Your task to perform on an android device: Turn off the flashlight Image 0: 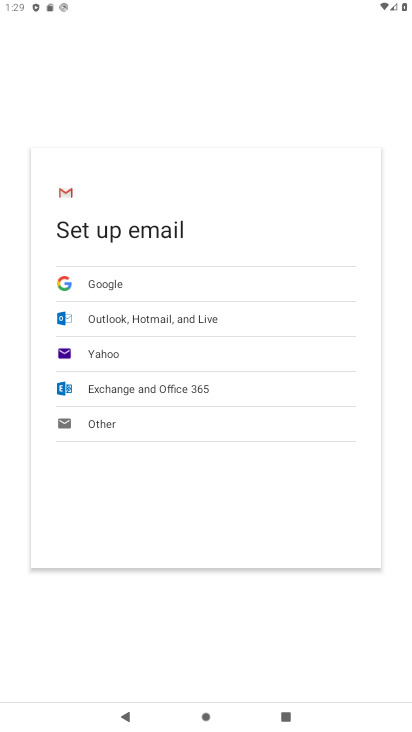
Step 0: press home button
Your task to perform on an android device: Turn off the flashlight Image 1: 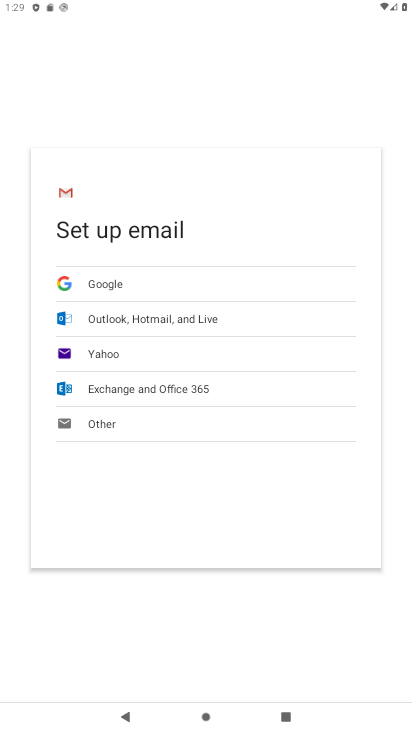
Step 1: press home button
Your task to perform on an android device: Turn off the flashlight Image 2: 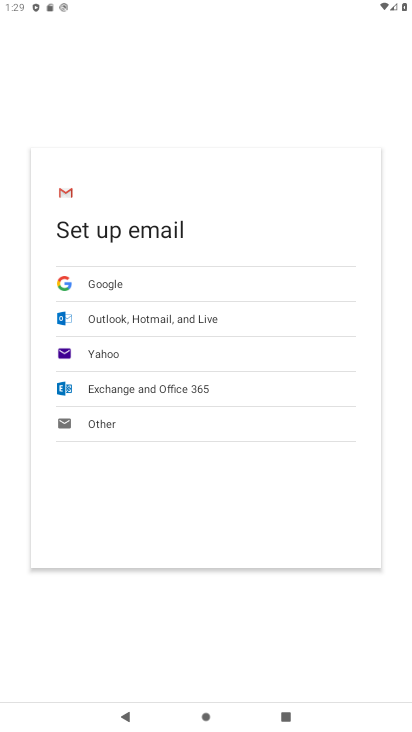
Step 2: drag from (238, 651) to (366, 125)
Your task to perform on an android device: Turn off the flashlight Image 3: 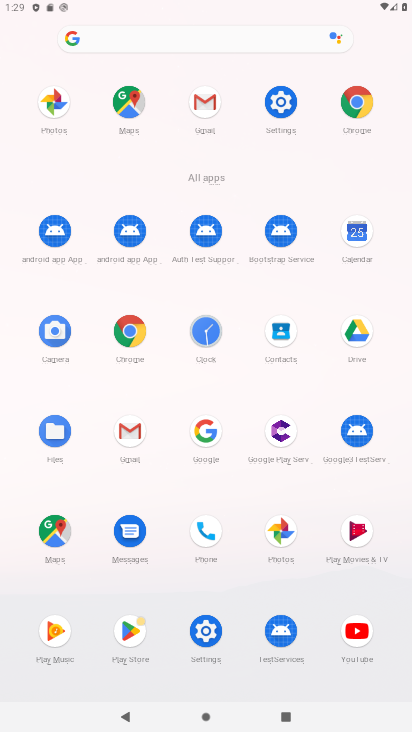
Step 3: drag from (170, 610) to (202, 283)
Your task to perform on an android device: Turn off the flashlight Image 4: 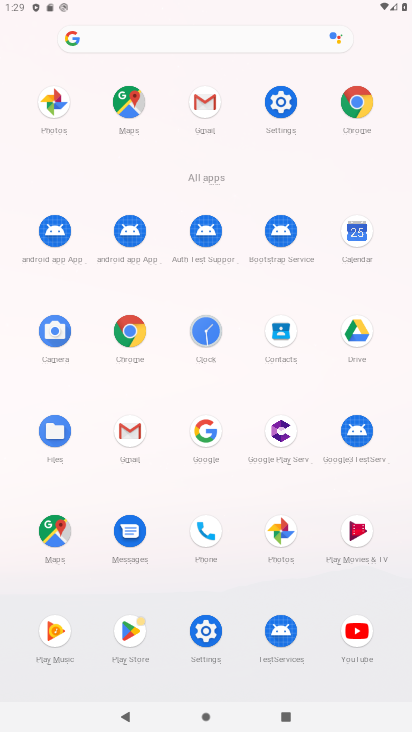
Step 4: click (204, 624)
Your task to perform on an android device: Turn off the flashlight Image 5: 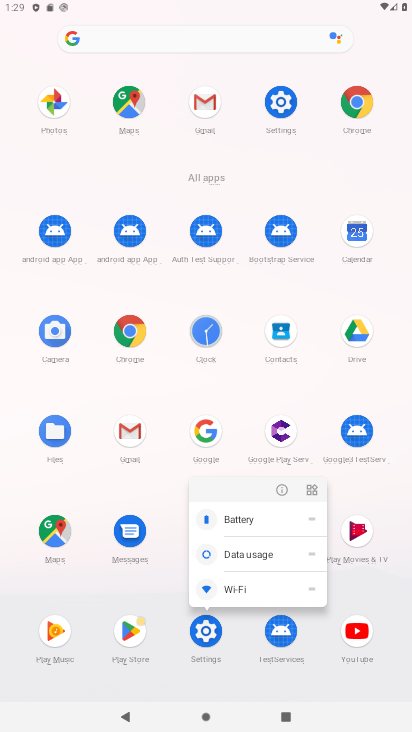
Step 5: click (288, 484)
Your task to perform on an android device: Turn off the flashlight Image 6: 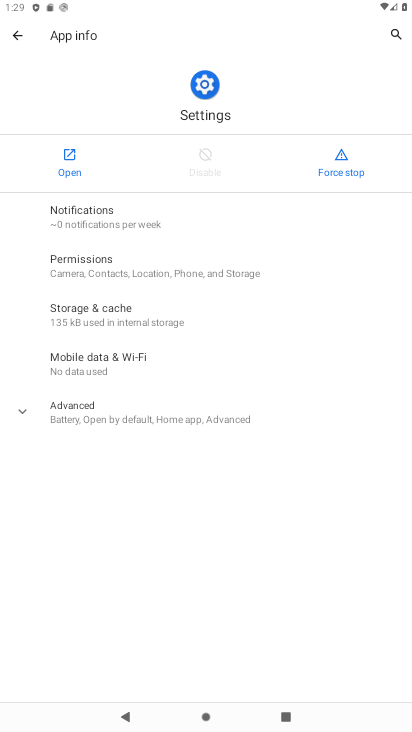
Step 6: click (58, 155)
Your task to perform on an android device: Turn off the flashlight Image 7: 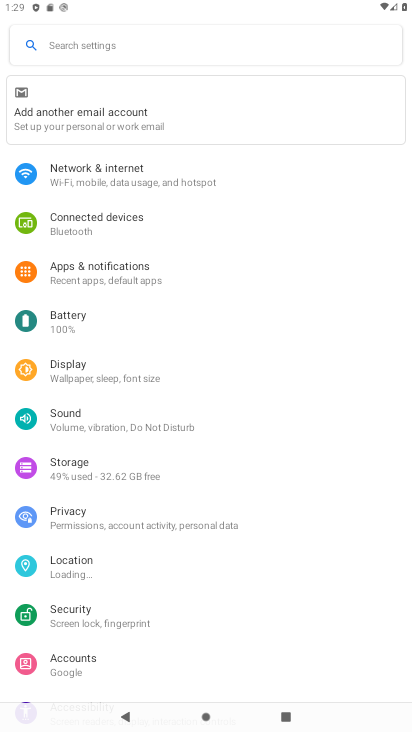
Step 7: click (146, 39)
Your task to perform on an android device: Turn off the flashlight Image 8: 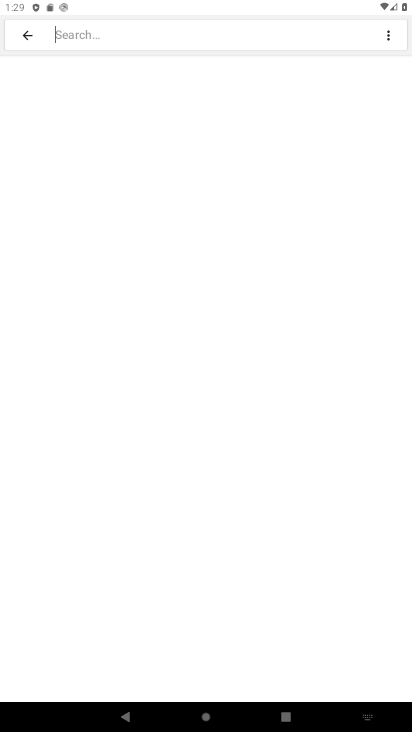
Step 8: drag from (172, 557) to (240, 73)
Your task to perform on an android device: Turn off the flashlight Image 9: 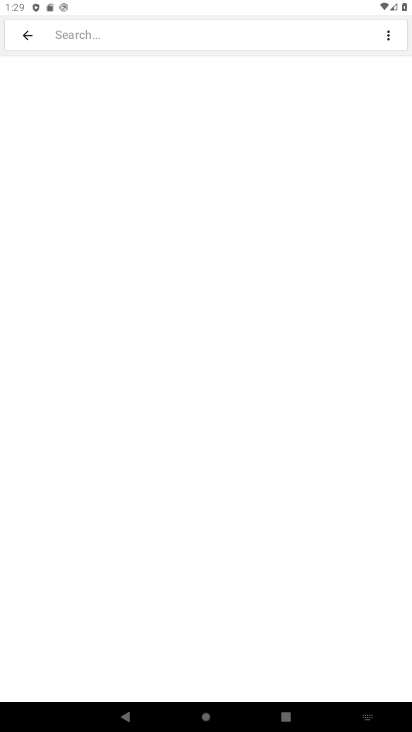
Step 9: click (113, 28)
Your task to perform on an android device: Turn off the flashlight Image 10: 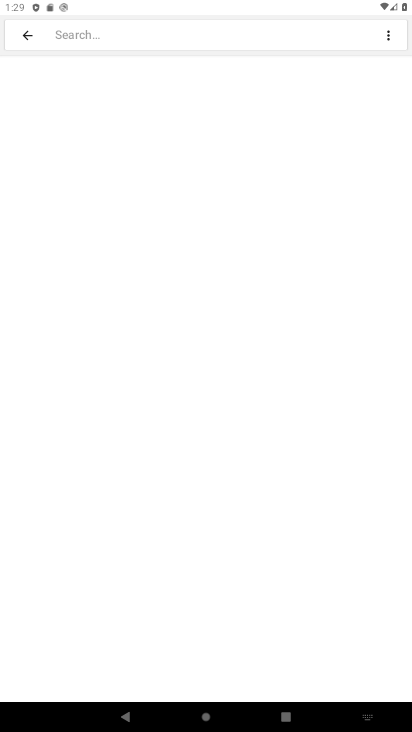
Step 10: click (85, 36)
Your task to perform on an android device: Turn off the flashlight Image 11: 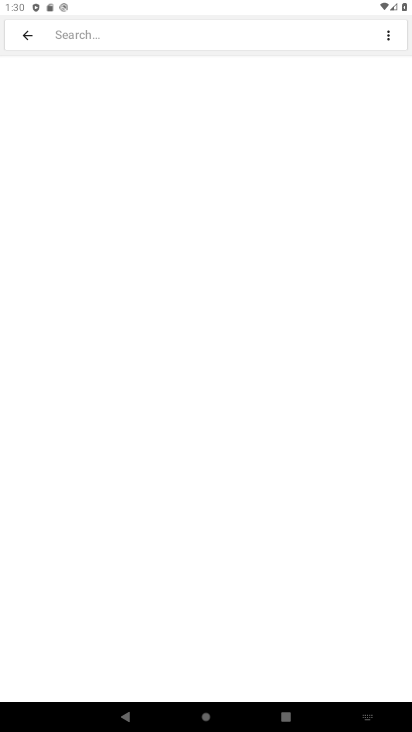
Step 11: type "flashlight"
Your task to perform on an android device: Turn off the flashlight Image 12: 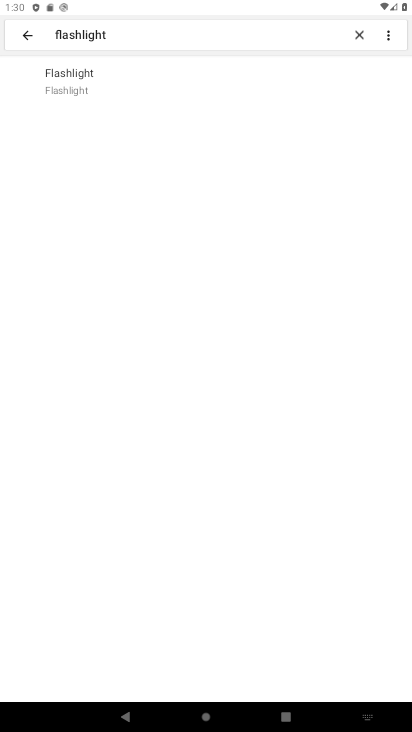
Step 12: drag from (177, 699) to (253, 219)
Your task to perform on an android device: Turn off the flashlight Image 13: 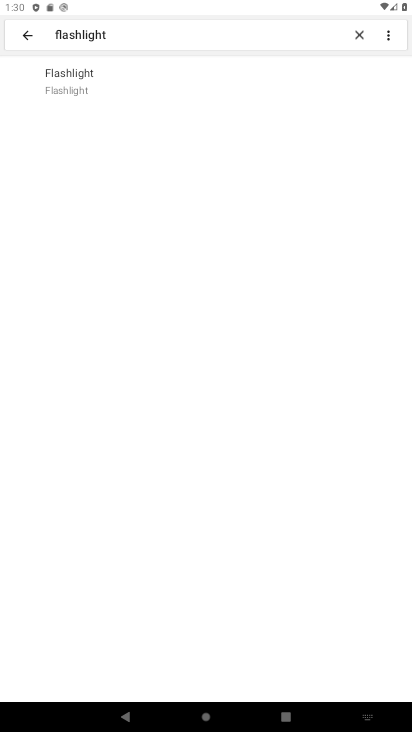
Step 13: click (151, 79)
Your task to perform on an android device: Turn off the flashlight Image 14: 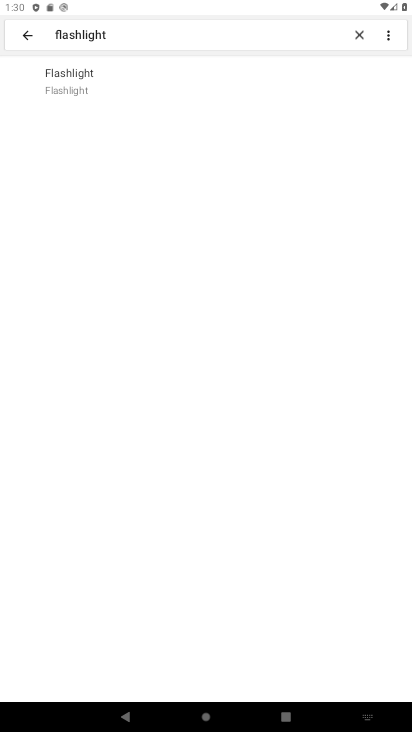
Step 14: task complete